Your task to perform on an android device: delete the emails in spam in the gmail app Image 0: 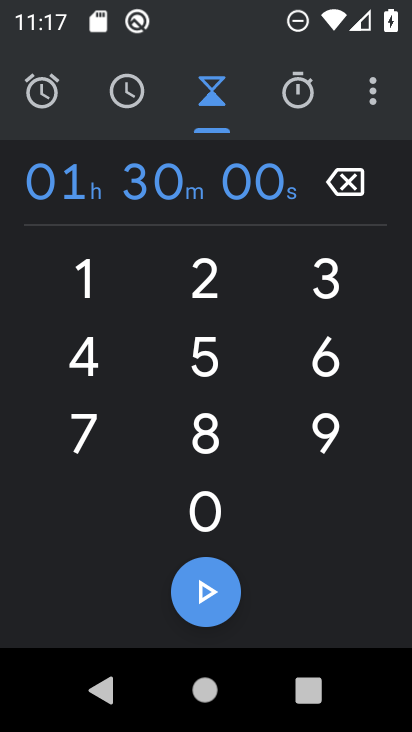
Step 0: press home button
Your task to perform on an android device: delete the emails in spam in the gmail app Image 1: 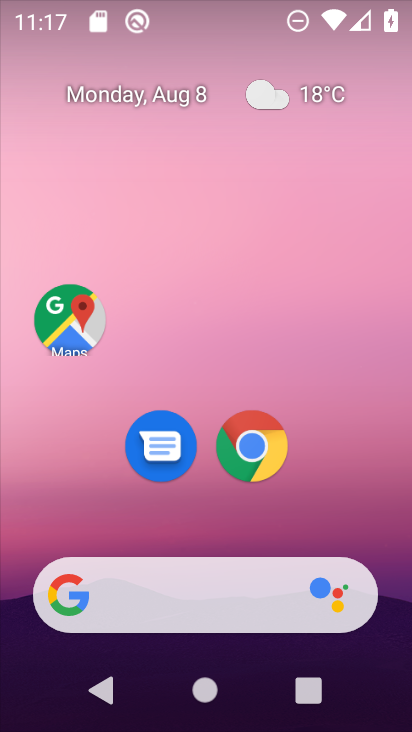
Step 1: drag from (402, 627) to (362, 132)
Your task to perform on an android device: delete the emails in spam in the gmail app Image 2: 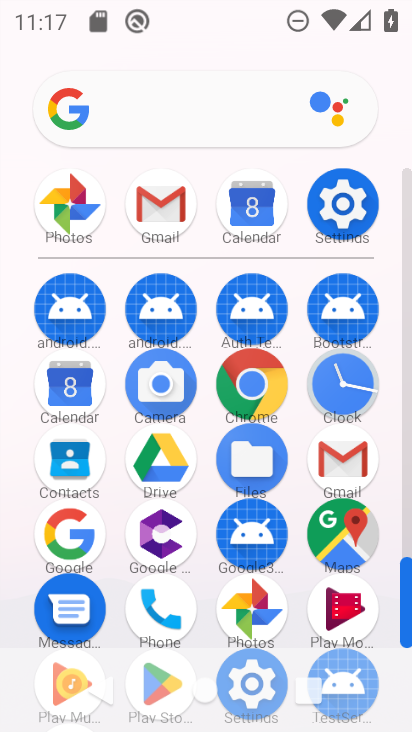
Step 2: click (340, 454)
Your task to perform on an android device: delete the emails in spam in the gmail app Image 3: 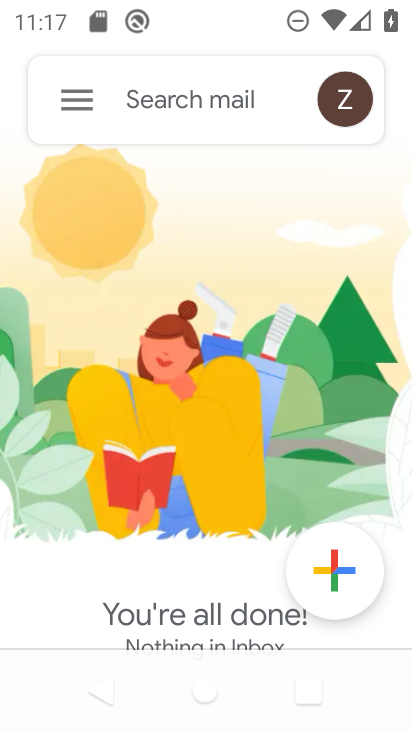
Step 3: click (65, 88)
Your task to perform on an android device: delete the emails in spam in the gmail app Image 4: 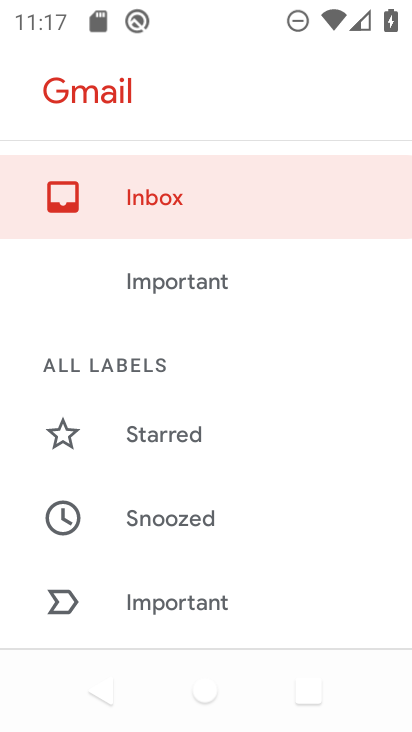
Step 4: drag from (314, 612) to (290, 322)
Your task to perform on an android device: delete the emails in spam in the gmail app Image 5: 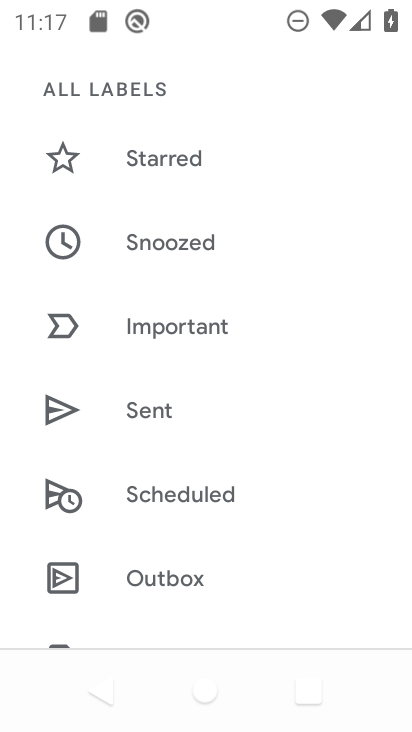
Step 5: drag from (272, 578) to (253, 287)
Your task to perform on an android device: delete the emails in spam in the gmail app Image 6: 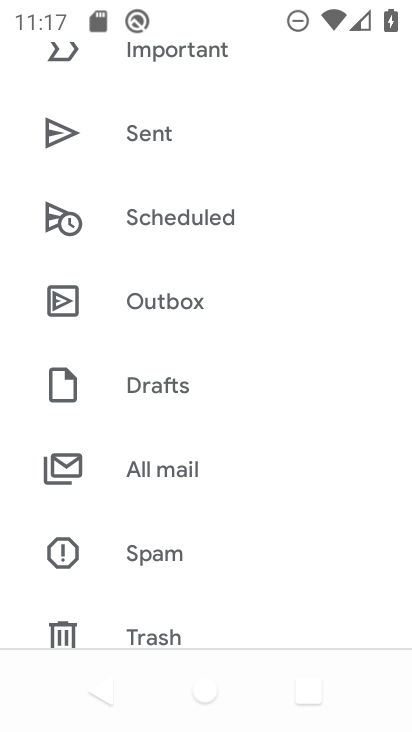
Step 6: drag from (254, 523) to (246, 437)
Your task to perform on an android device: delete the emails in spam in the gmail app Image 7: 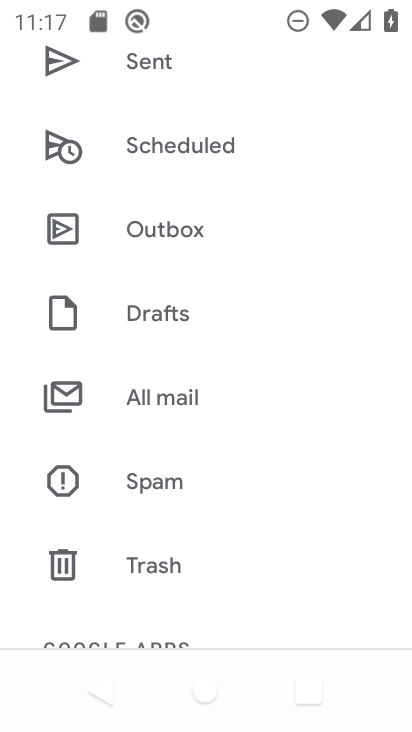
Step 7: click (136, 488)
Your task to perform on an android device: delete the emails in spam in the gmail app Image 8: 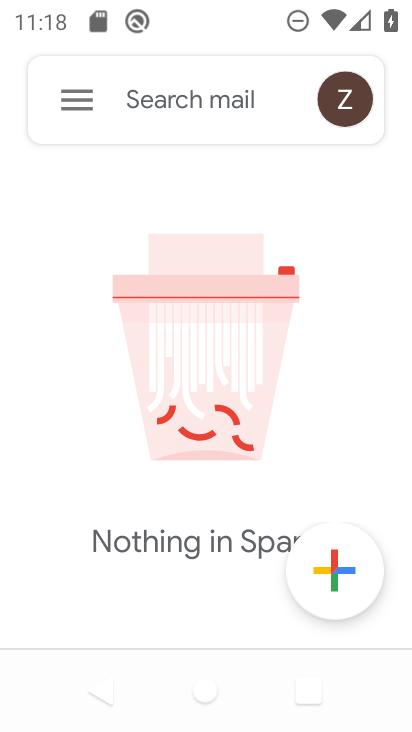
Step 8: task complete